Your task to perform on an android device: Show me popular videos on Youtube Image 0: 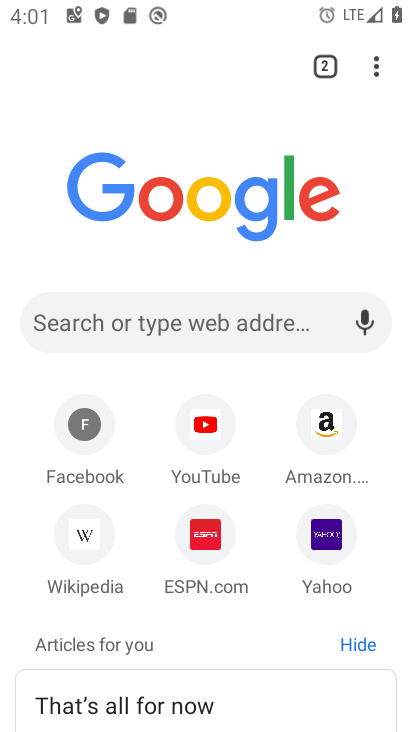
Step 0: press home button
Your task to perform on an android device: Show me popular videos on Youtube Image 1: 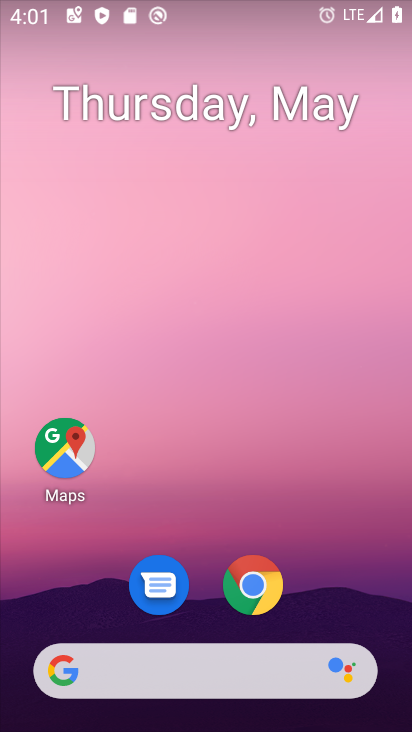
Step 1: drag from (187, 518) to (194, 0)
Your task to perform on an android device: Show me popular videos on Youtube Image 2: 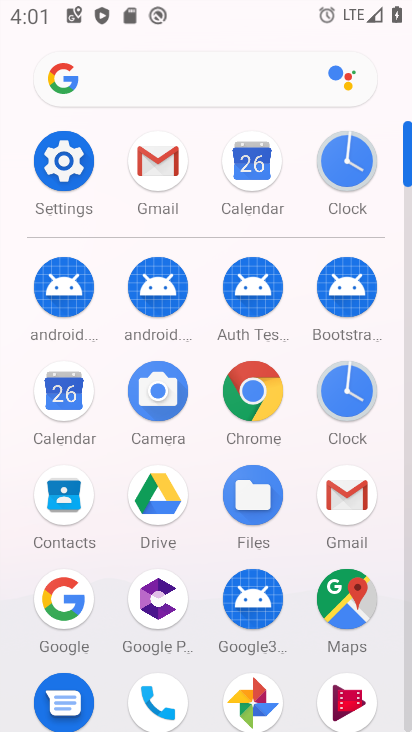
Step 2: drag from (188, 638) to (201, 326)
Your task to perform on an android device: Show me popular videos on Youtube Image 3: 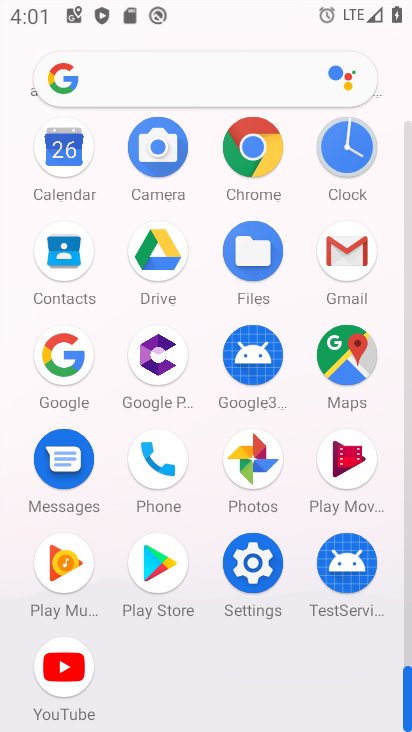
Step 3: click (71, 667)
Your task to perform on an android device: Show me popular videos on Youtube Image 4: 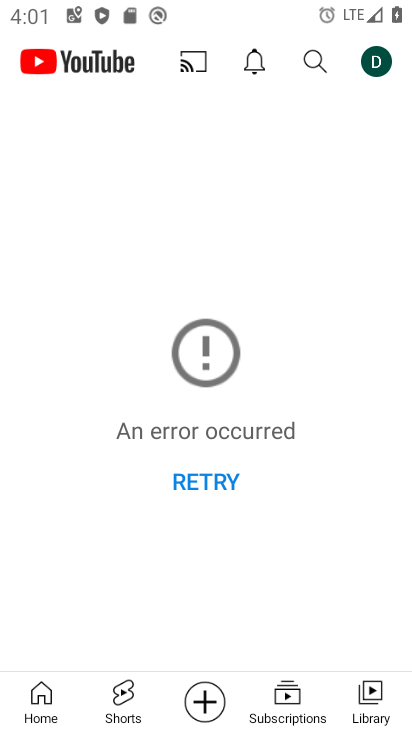
Step 4: click (38, 701)
Your task to perform on an android device: Show me popular videos on Youtube Image 5: 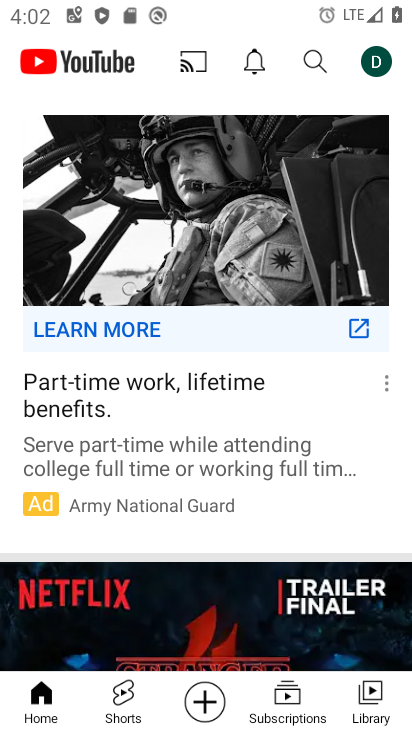
Step 5: click (299, 50)
Your task to perform on an android device: Show me popular videos on Youtube Image 6: 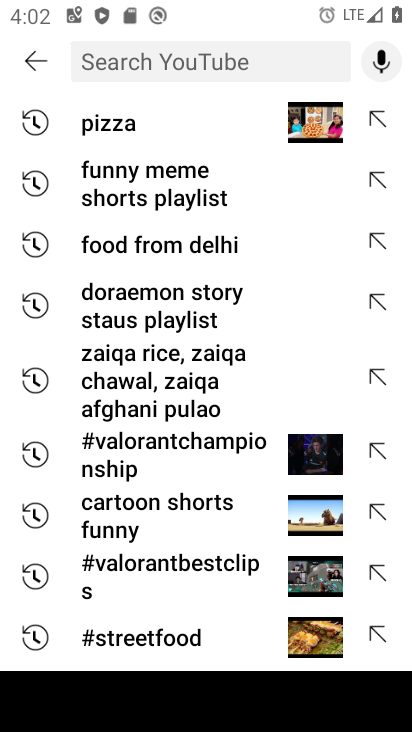
Step 6: type "Popular videos"
Your task to perform on an android device: Show me popular videos on Youtube Image 7: 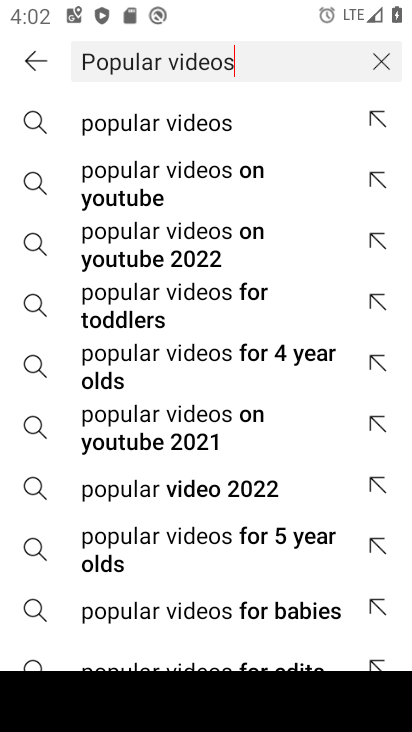
Step 7: click (214, 162)
Your task to perform on an android device: Show me popular videos on Youtube Image 8: 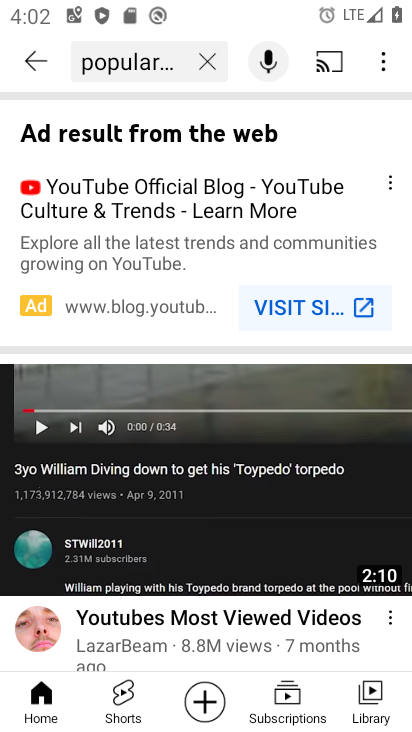
Step 8: task complete